Your task to perform on an android device: star an email in the gmail app Image 0: 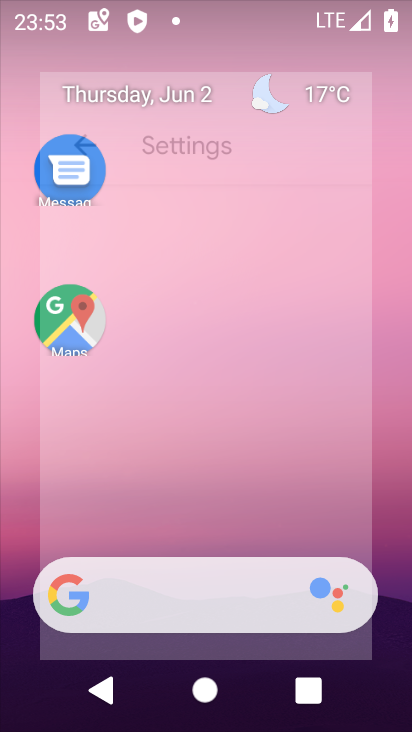
Step 0: press home button
Your task to perform on an android device: star an email in the gmail app Image 1: 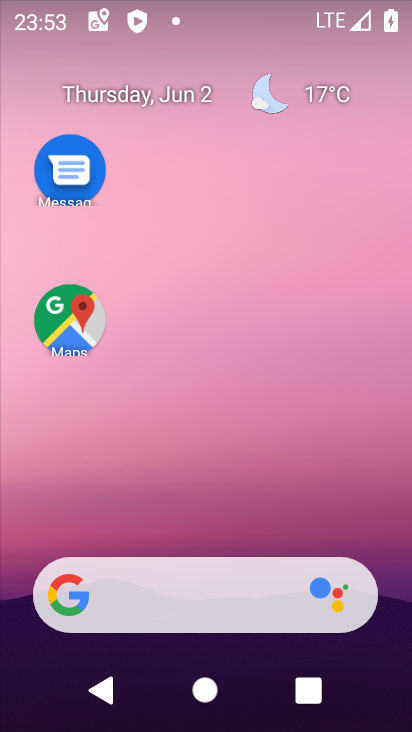
Step 1: drag from (198, 583) to (210, 95)
Your task to perform on an android device: star an email in the gmail app Image 2: 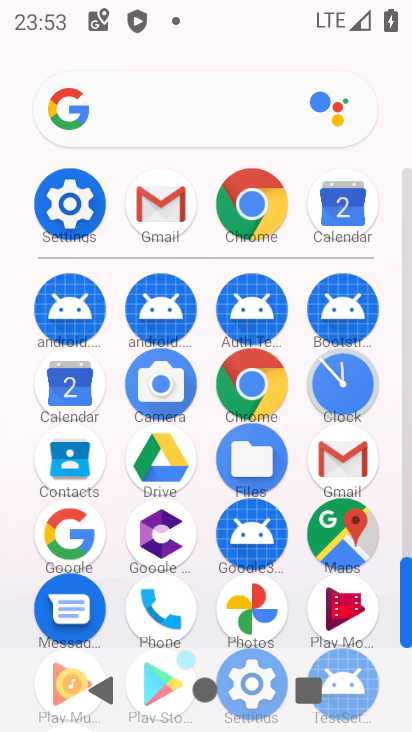
Step 2: click (172, 209)
Your task to perform on an android device: star an email in the gmail app Image 3: 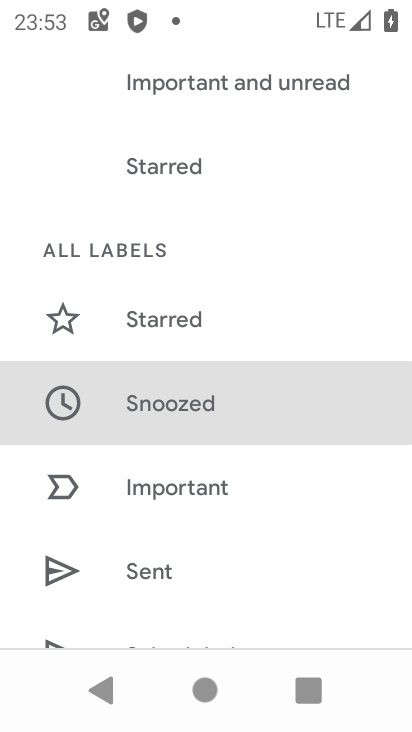
Step 3: task complete